Your task to perform on an android device: Check the news Image 0: 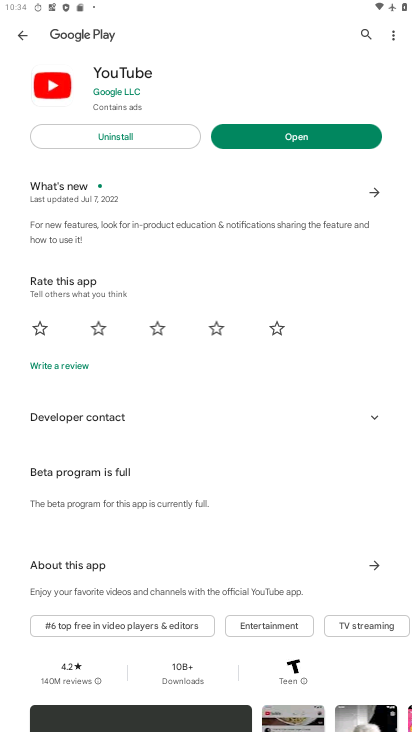
Step 0: press home button
Your task to perform on an android device: Check the news Image 1: 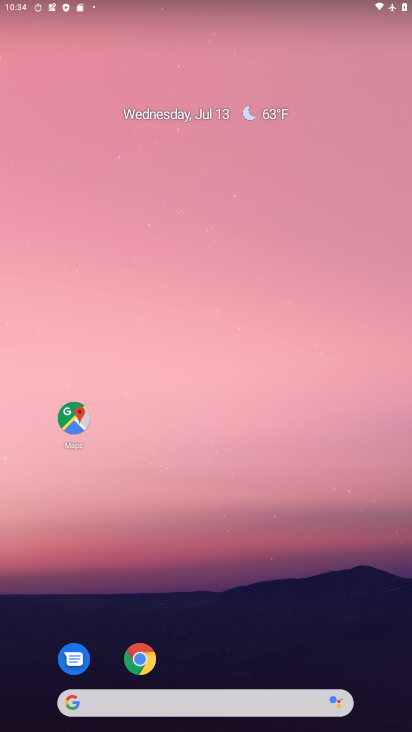
Step 1: drag from (300, 624) to (293, 107)
Your task to perform on an android device: Check the news Image 2: 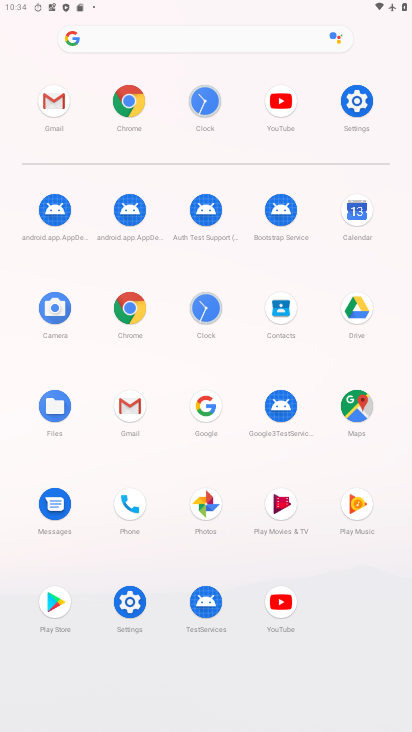
Step 2: click (127, 96)
Your task to perform on an android device: Check the news Image 3: 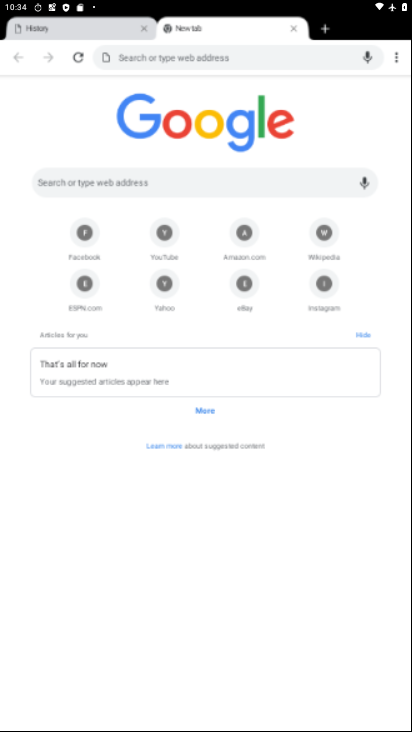
Step 3: click (171, 58)
Your task to perform on an android device: Check the news Image 4: 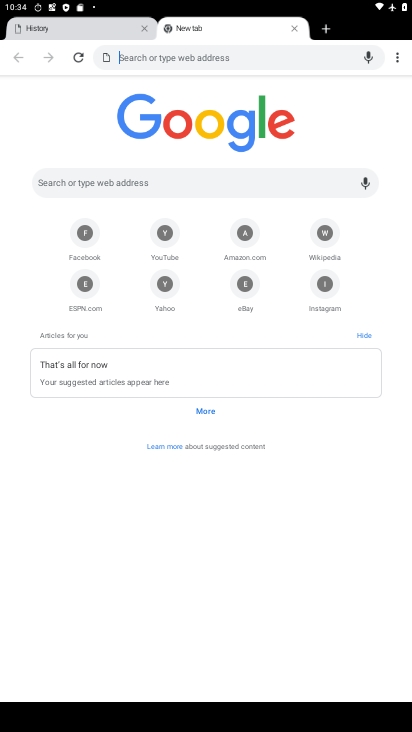
Step 4: click (171, 58)
Your task to perform on an android device: Check the news Image 5: 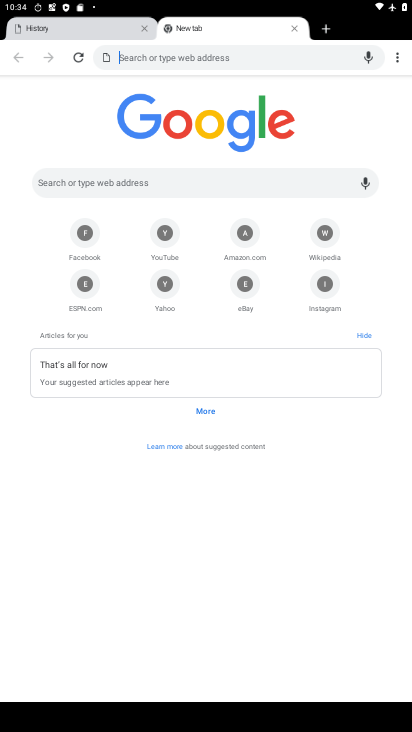
Step 5: type "news"
Your task to perform on an android device: Check the news Image 6: 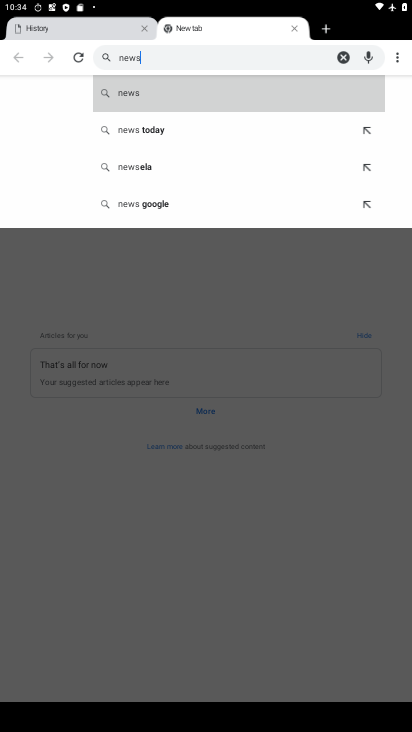
Step 6: click (223, 99)
Your task to perform on an android device: Check the news Image 7: 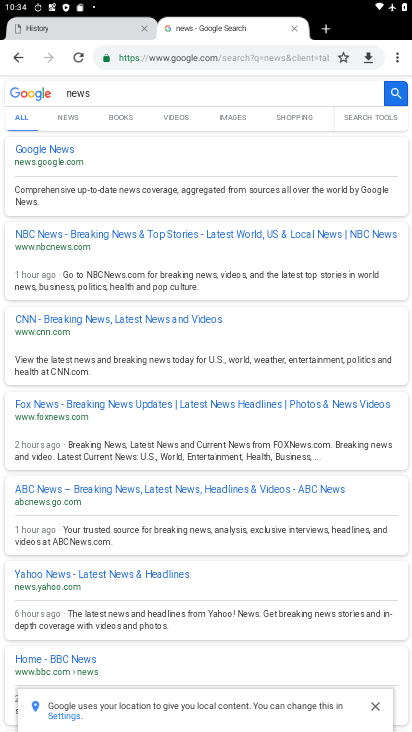
Step 7: click (55, 146)
Your task to perform on an android device: Check the news Image 8: 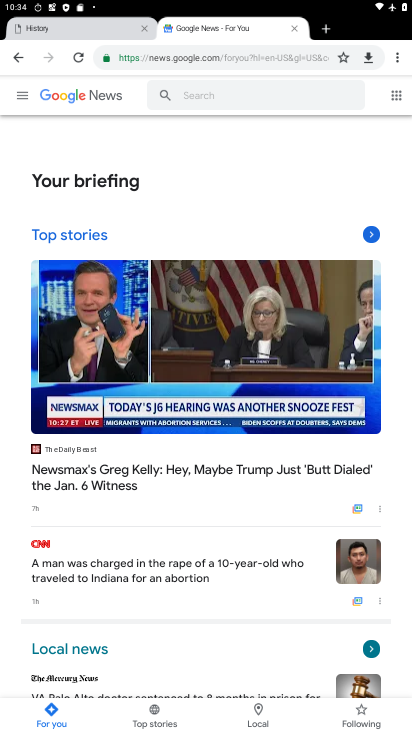
Step 8: task complete